Your task to perform on an android device: toggle sleep mode Image 0: 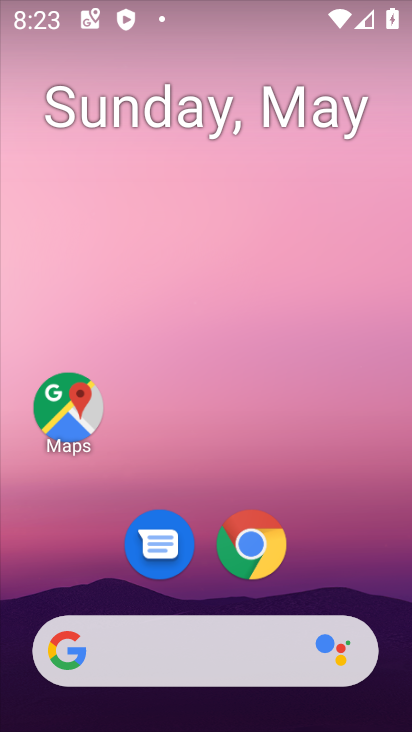
Step 0: drag from (330, 454) to (206, 2)
Your task to perform on an android device: toggle sleep mode Image 1: 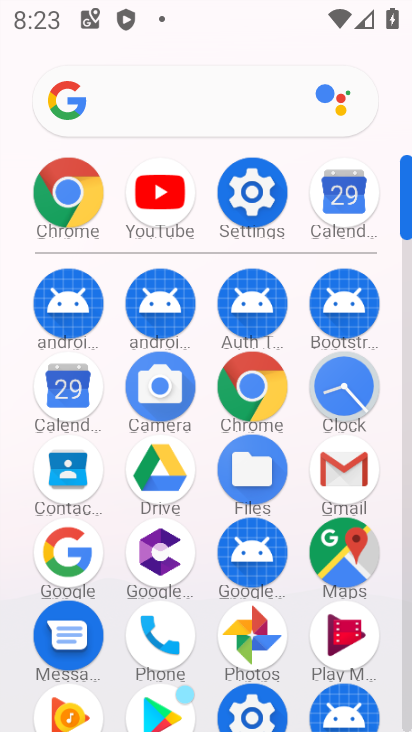
Step 1: drag from (12, 540) to (22, 174)
Your task to perform on an android device: toggle sleep mode Image 2: 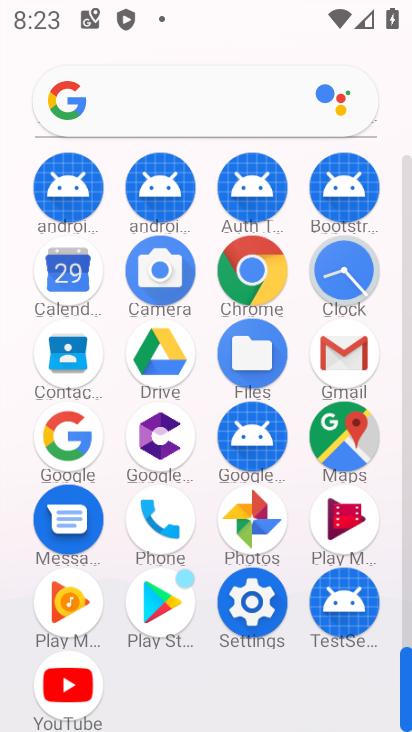
Step 2: click (251, 597)
Your task to perform on an android device: toggle sleep mode Image 3: 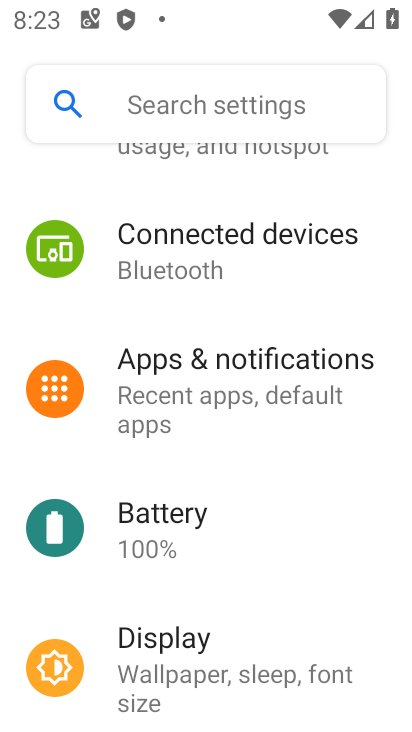
Step 3: drag from (324, 223) to (335, 658)
Your task to perform on an android device: toggle sleep mode Image 4: 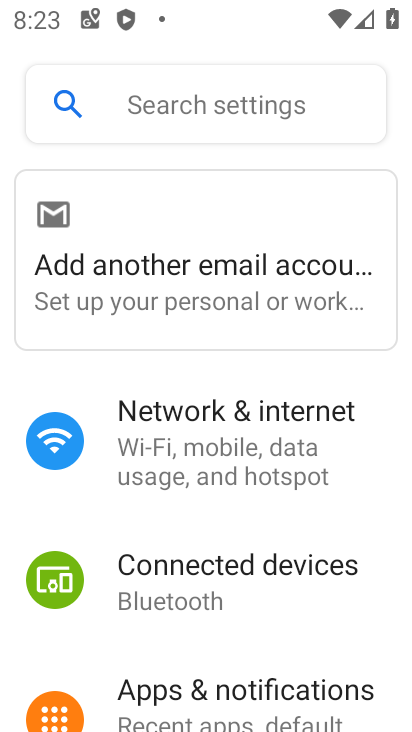
Step 4: click (249, 463)
Your task to perform on an android device: toggle sleep mode Image 5: 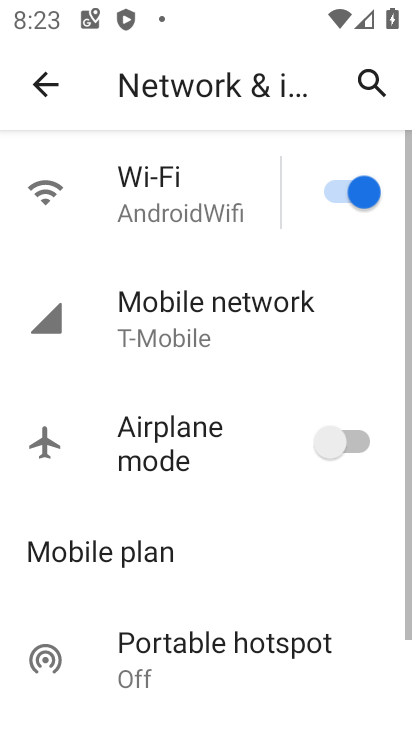
Step 5: drag from (238, 571) to (253, 163)
Your task to perform on an android device: toggle sleep mode Image 6: 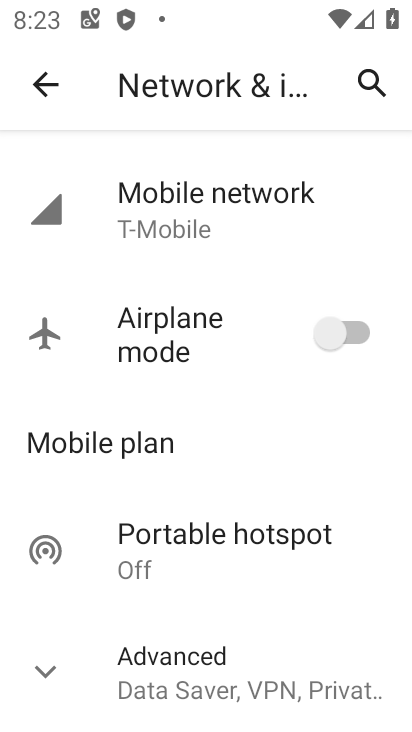
Step 6: click (53, 665)
Your task to perform on an android device: toggle sleep mode Image 7: 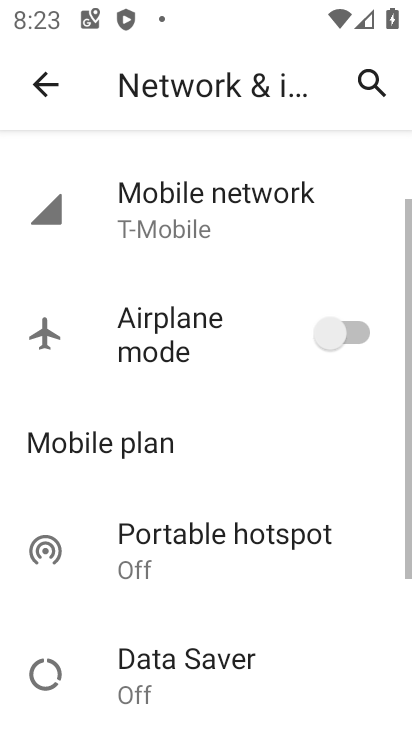
Step 7: drag from (231, 596) to (222, 131)
Your task to perform on an android device: toggle sleep mode Image 8: 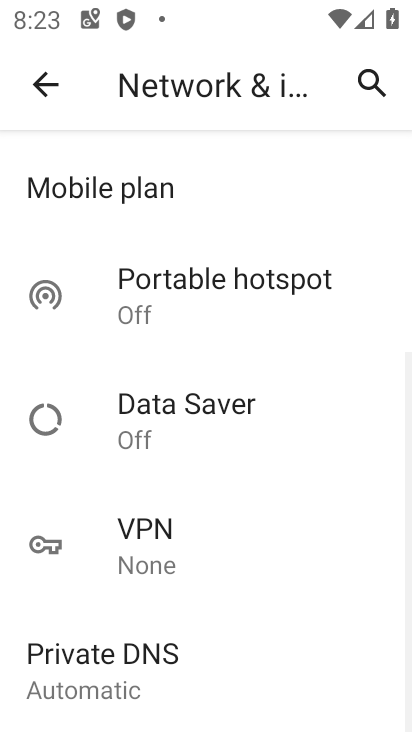
Step 8: drag from (215, 542) to (212, 185)
Your task to perform on an android device: toggle sleep mode Image 9: 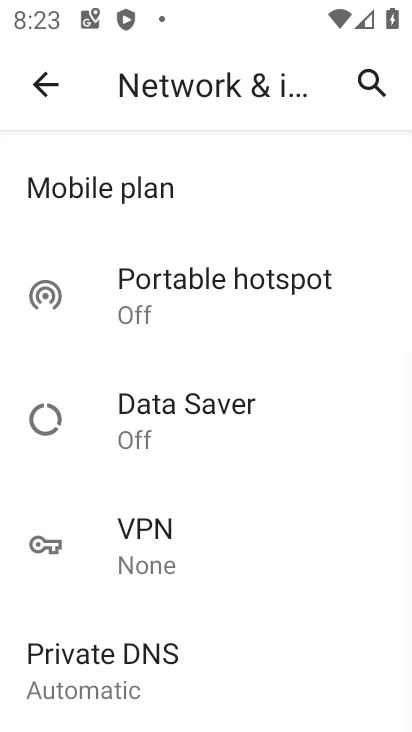
Step 9: click (52, 80)
Your task to perform on an android device: toggle sleep mode Image 10: 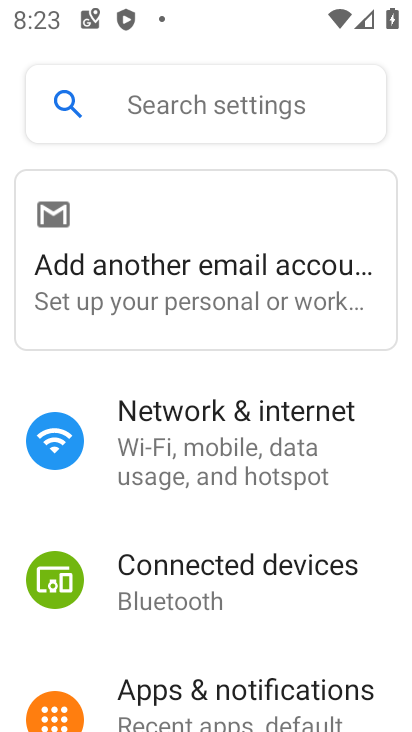
Step 10: drag from (309, 604) to (303, 237)
Your task to perform on an android device: toggle sleep mode Image 11: 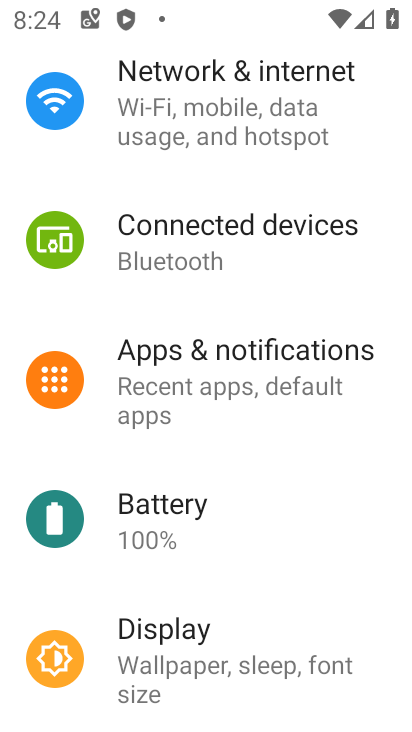
Step 11: drag from (281, 549) to (316, 141)
Your task to perform on an android device: toggle sleep mode Image 12: 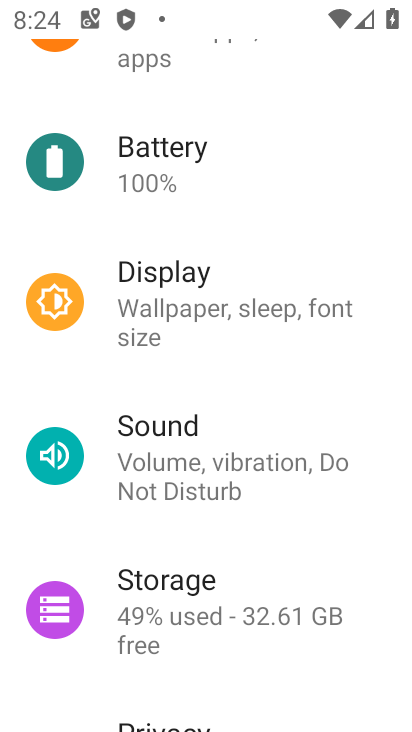
Step 12: click (236, 284)
Your task to perform on an android device: toggle sleep mode Image 13: 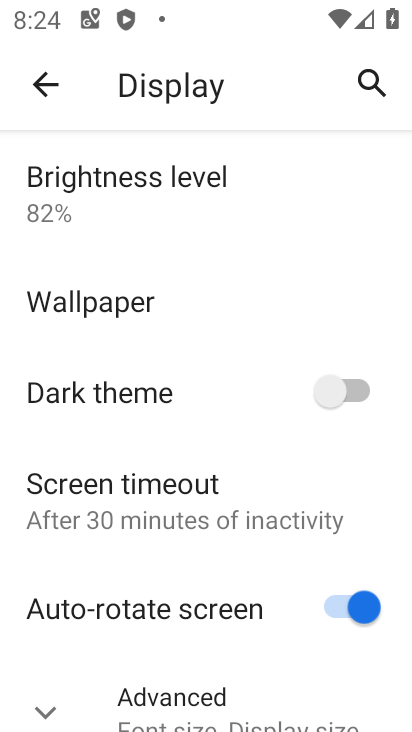
Step 13: click (46, 700)
Your task to perform on an android device: toggle sleep mode Image 14: 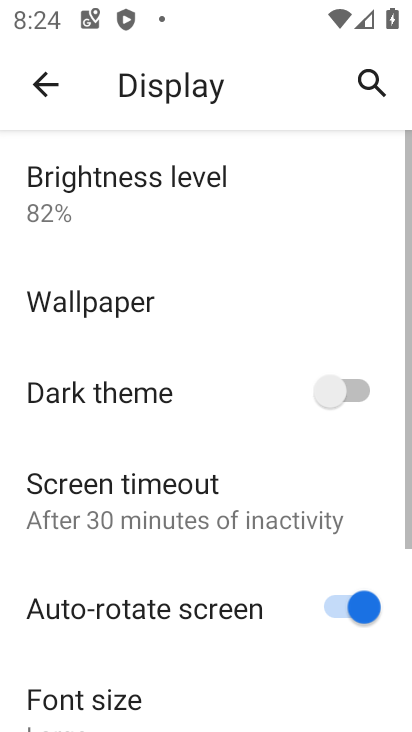
Step 14: task complete